Your task to perform on an android device: Open Maps and search for coffee Image 0: 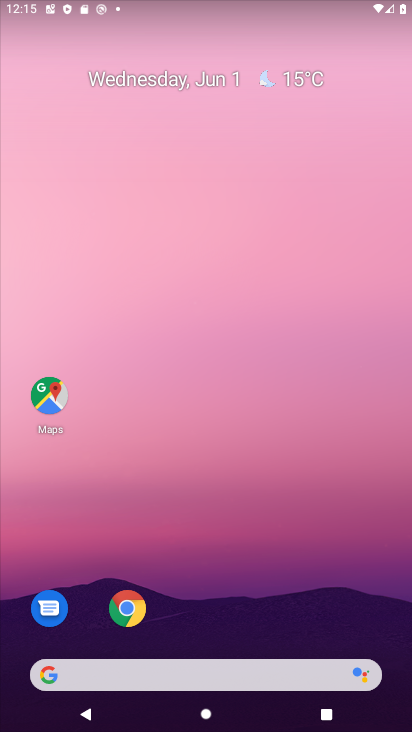
Step 0: click (46, 387)
Your task to perform on an android device: Open Maps and search for coffee Image 1: 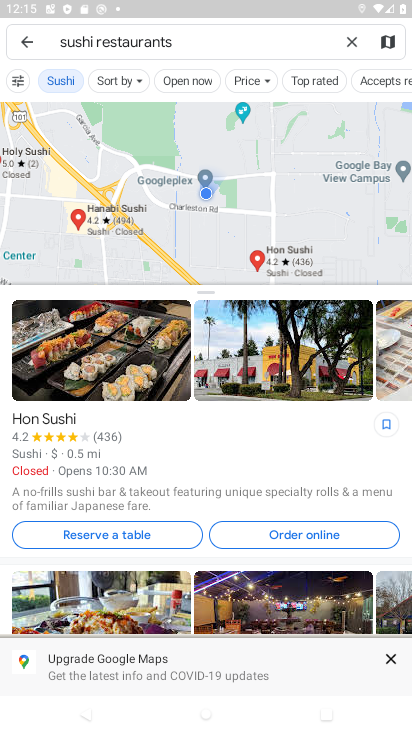
Step 1: click (350, 39)
Your task to perform on an android device: Open Maps and search for coffee Image 2: 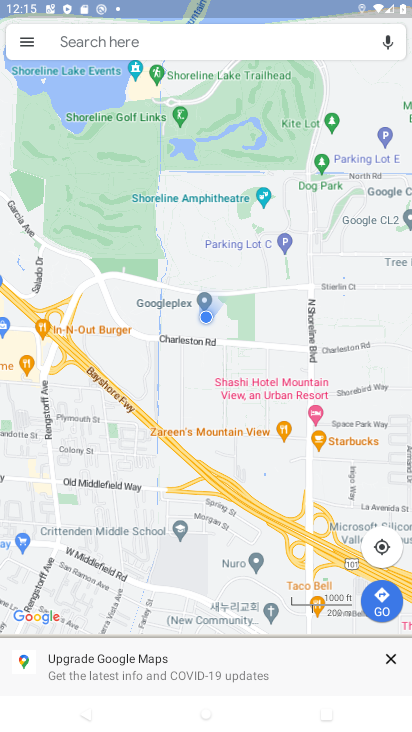
Step 2: click (218, 47)
Your task to perform on an android device: Open Maps and search for coffee Image 3: 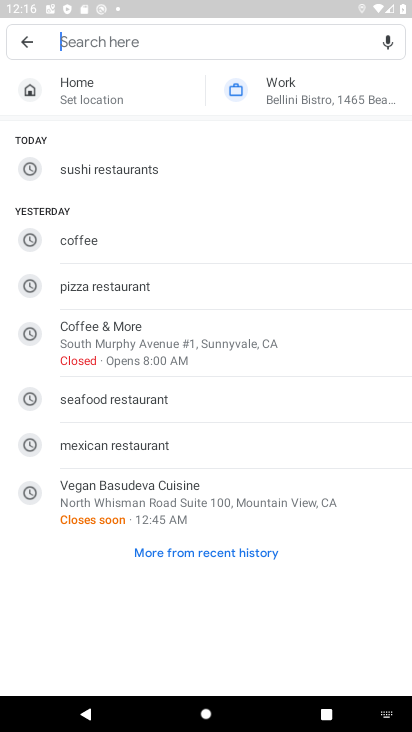
Step 3: type "coffee"
Your task to perform on an android device: Open Maps and search for coffee Image 4: 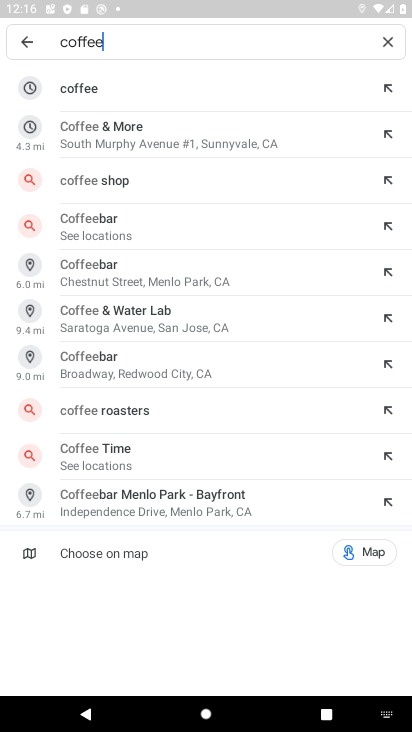
Step 4: click (137, 87)
Your task to perform on an android device: Open Maps and search for coffee Image 5: 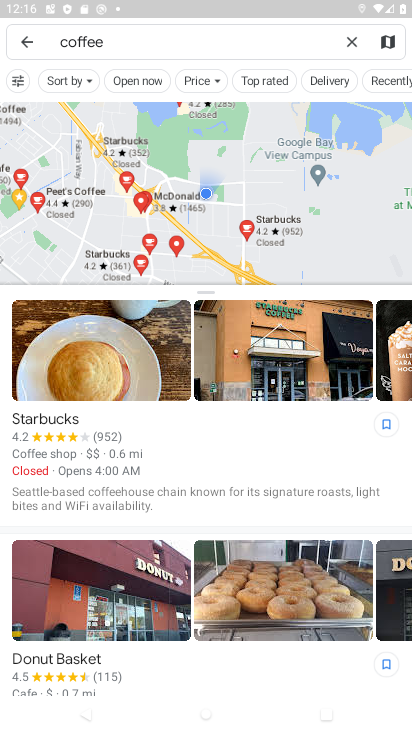
Step 5: task complete